Your task to perform on an android device: Open the map Image 0: 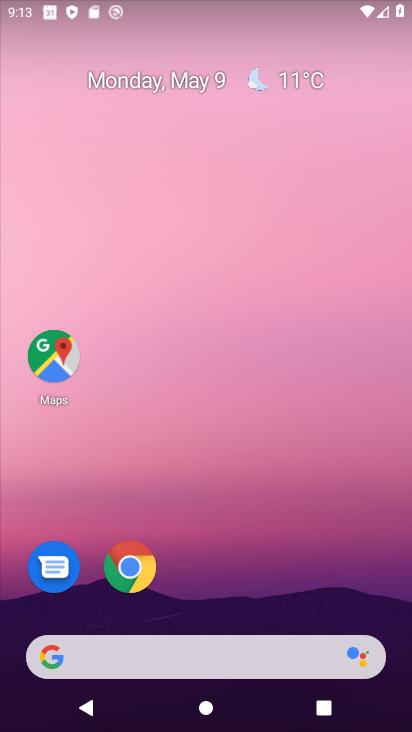
Step 0: click (59, 361)
Your task to perform on an android device: Open the map Image 1: 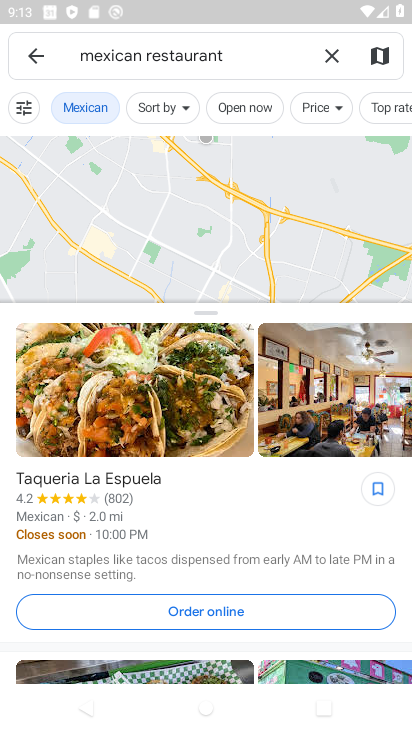
Step 1: click (332, 57)
Your task to perform on an android device: Open the map Image 2: 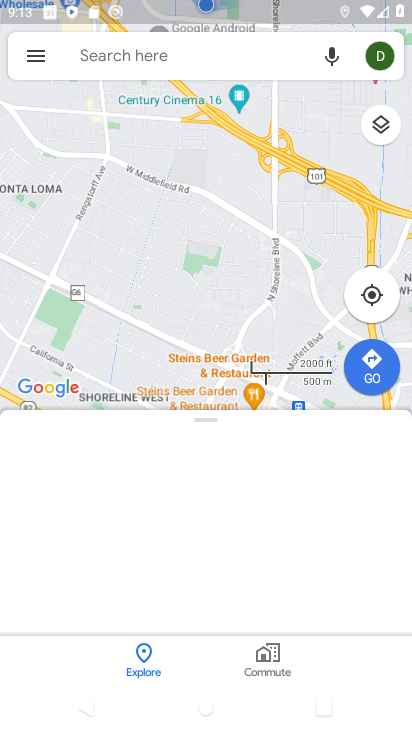
Step 2: task complete